Your task to perform on an android device: Search for Italian restaurants on Maps Image 0: 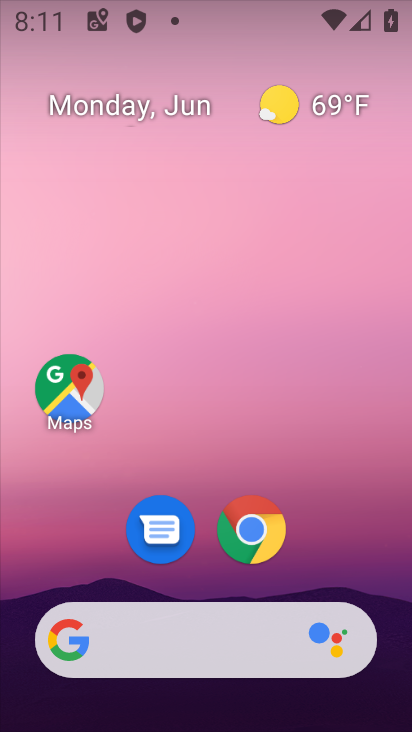
Step 0: click (85, 390)
Your task to perform on an android device: Search for Italian restaurants on Maps Image 1: 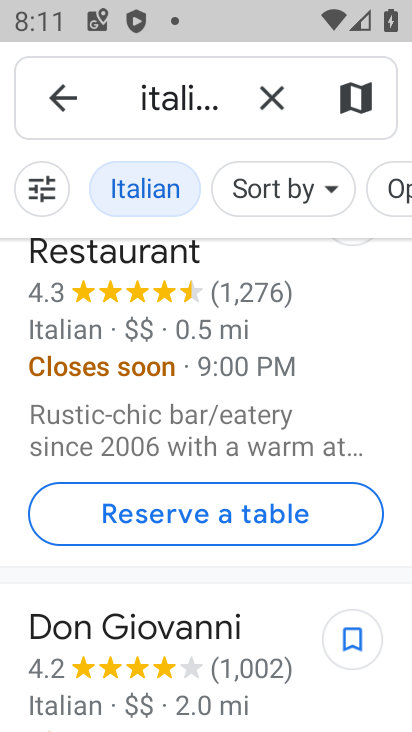
Step 1: task complete